Your task to perform on an android device: show emergency info Image 0: 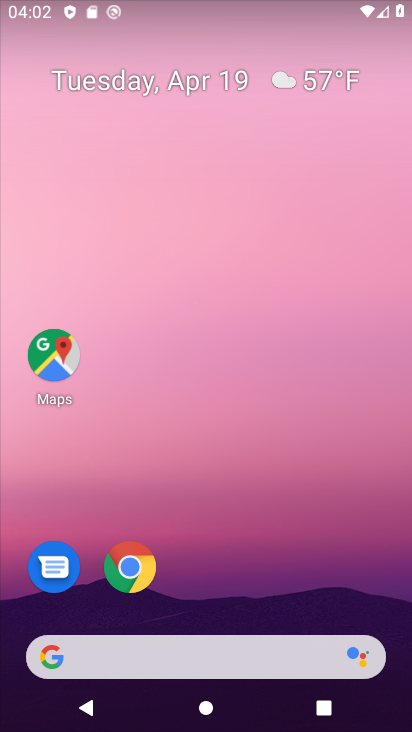
Step 0: drag from (335, 570) to (346, 178)
Your task to perform on an android device: show emergency info Image 1: 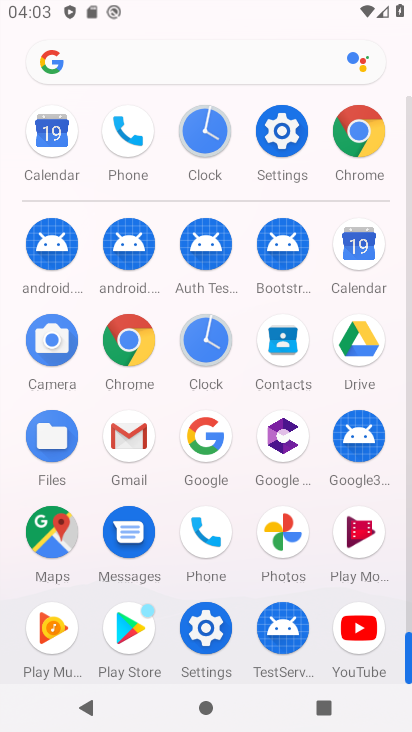
Step 1: click (271, 140)
Your task to perform on an android device: show emergency info Image 2: 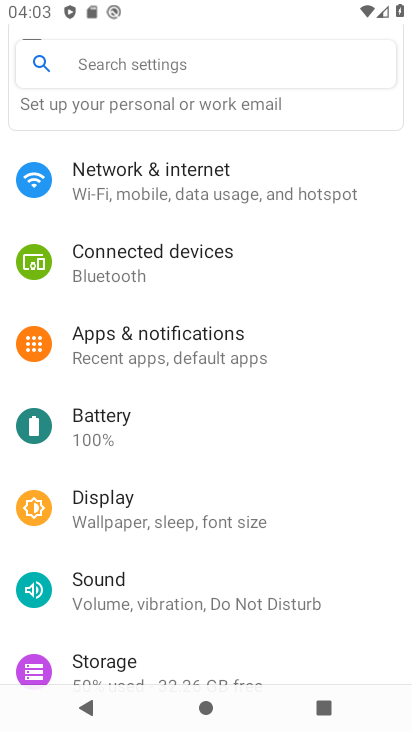
Step 2: drag from (337, 435) to (313, 310)
Your task to perform on an android device: show emergency info Image 3: 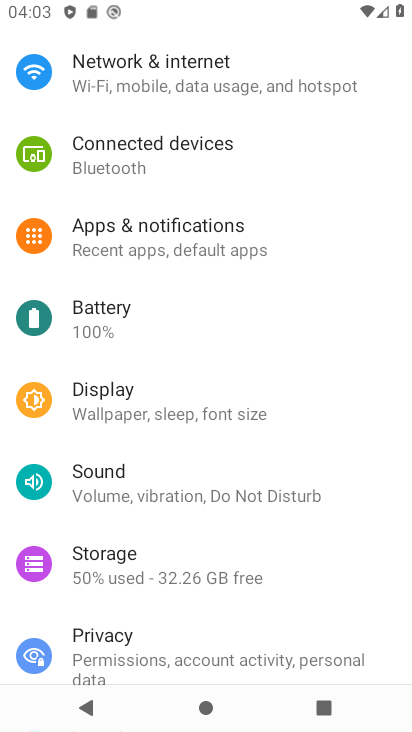
Step 3: drag from (332, 447) to (314, 262)
Your task to perform on an android device: show emergency info Image 4: 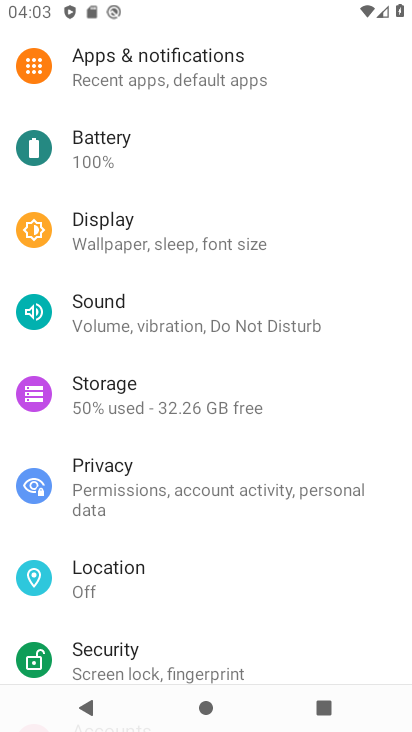
Step 4: drag from (361, 522) to (355, 317)
Your task to perform on an android device: show emergency info Image 5: 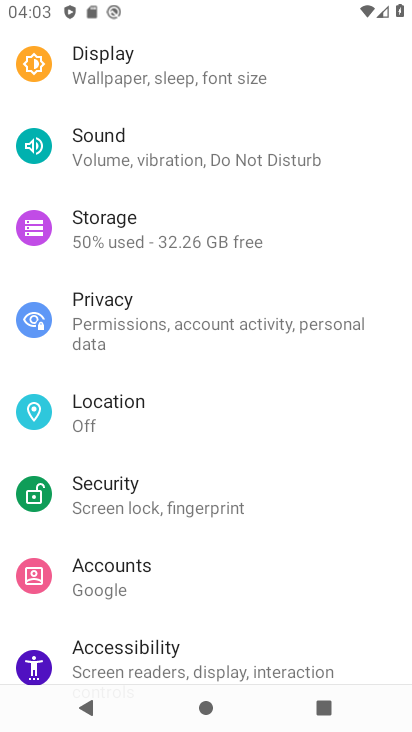
Step 5: drag from (337, 524) to (333, 372)
Your task to perform on an android device: show emergency info Image 6: 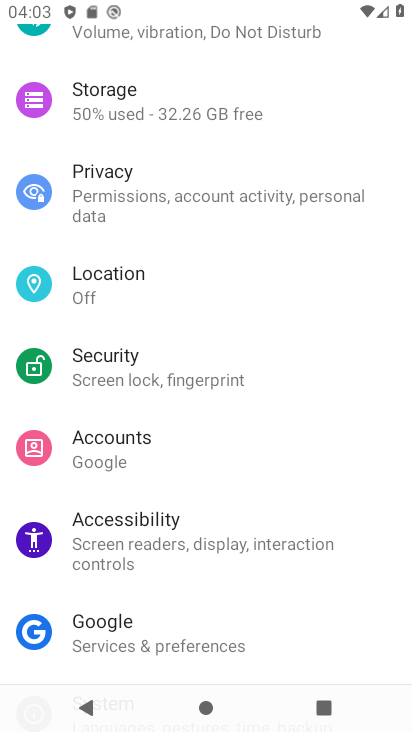
Step 6: drag from (343, 589) to (344, 413)
Your task to perform on an android device: show emergency info Image 7: 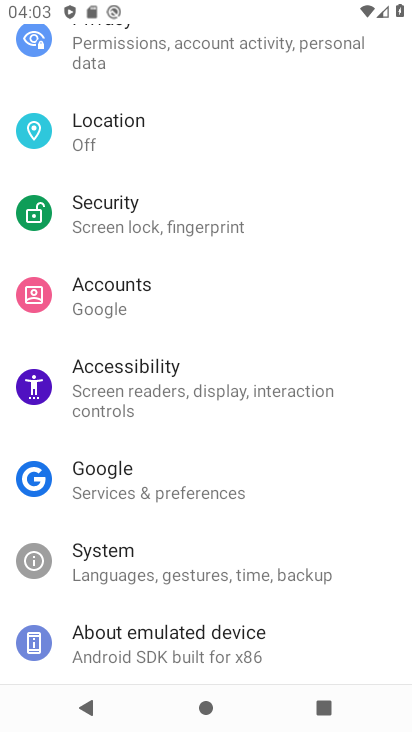
Step 7: drag from (355, 620) to (360, 482)
Your task to perform on an android device: show emergency info Image 8: 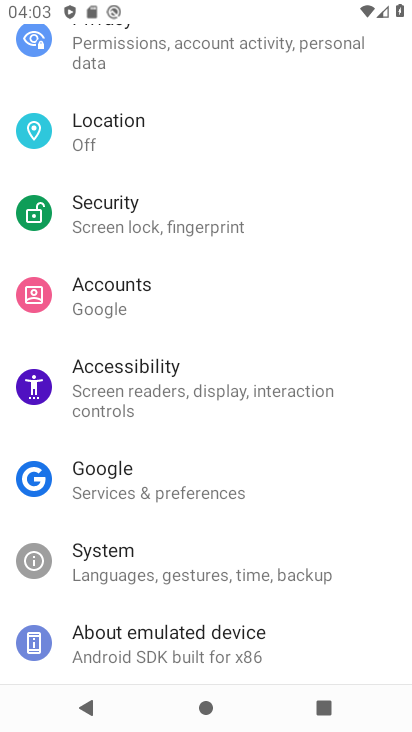
Step 8: click (203, 638)
Your task to perform on an android device: show emergency info Image 9: 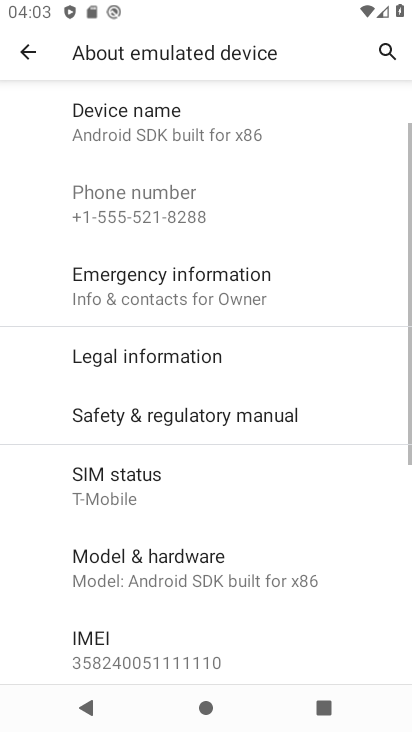
Step 9: click (253, 293)
Your task to perform on an android device: show emergency info Image 10: 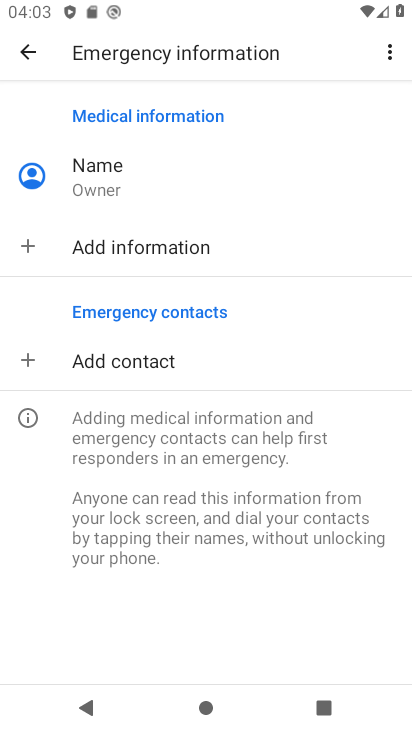
Step 10: task complete